Your task to perform on an android device: When is my next meeting? Image 0: 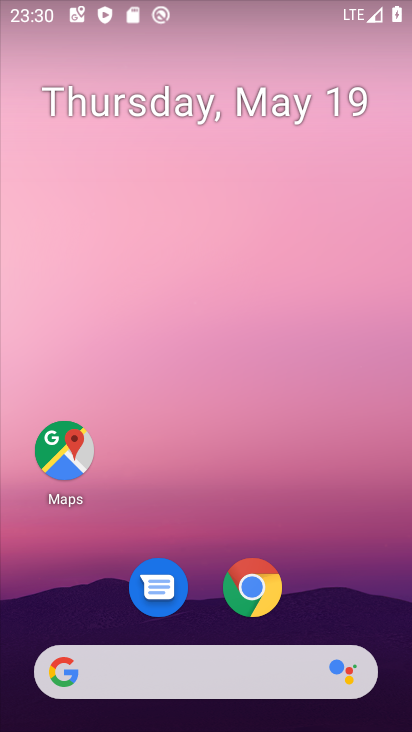
Step 0: press home button
Your task to perform on an android device: When is my next meeting? Image 1: 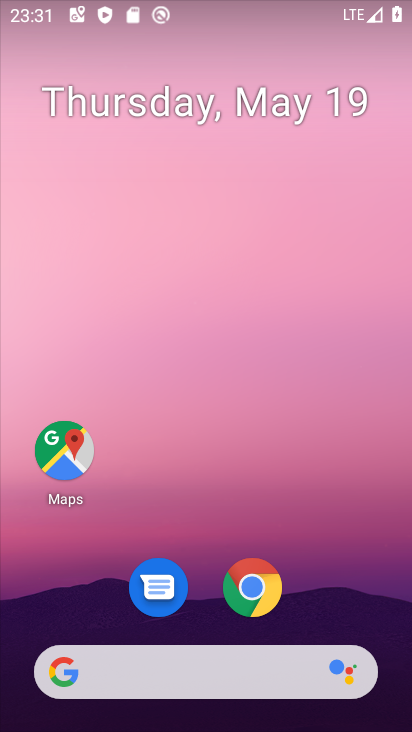
Step 1: drag from (205, 720) to (222, 290)
Your task to perform on an android device: When is my next meeting? Image 2: 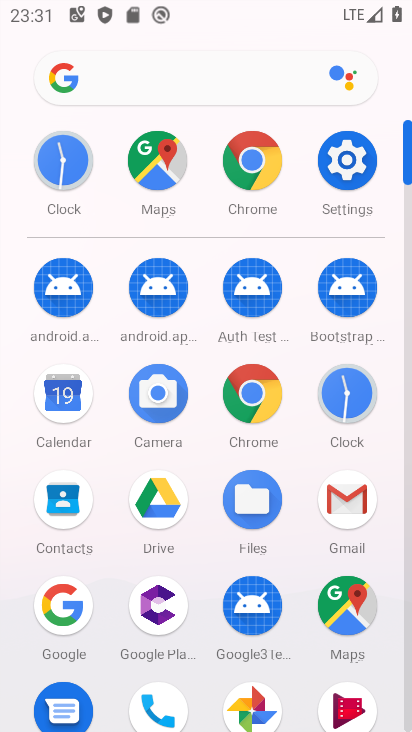
Step 2: click (64, 415)
Your task to perform on an android device: When is my next meeting? Image 3: 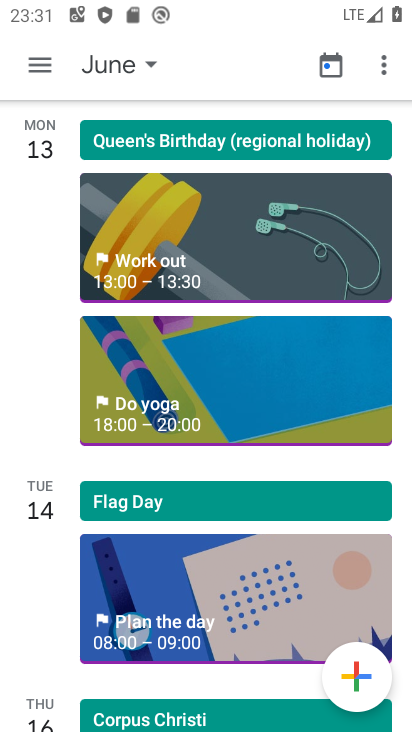
Step 3: click (42, 72)
Your task to perform on an android device: When is my next meeting? Image 4: 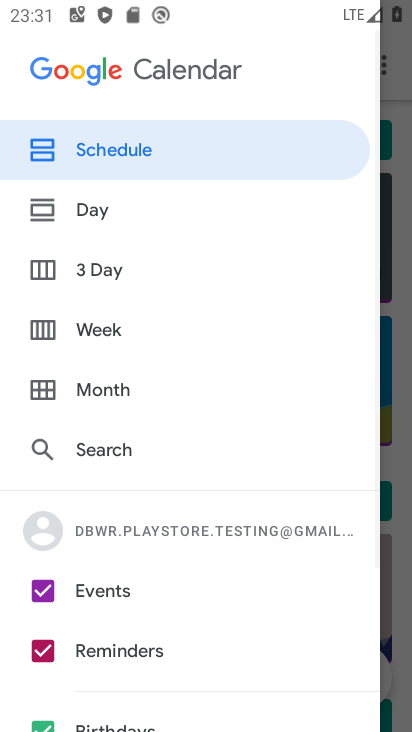
Step 4: click (103, 397)
Your task to perform on an android device: When is my next meeting? Image 5: 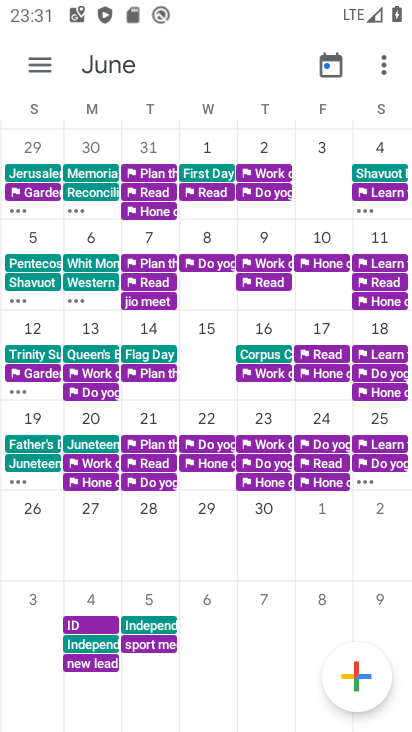
Step 5: drag from (29, 401) to (398, 386)
Your task to perform on an android device: When is my next meeting? Image 6: 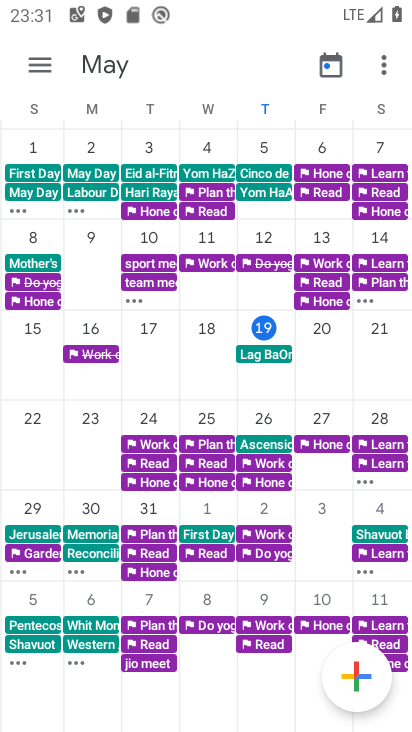
Step 6: click (249, 346)
Your task to perform on an android device: When is my next meeting? Image 7: 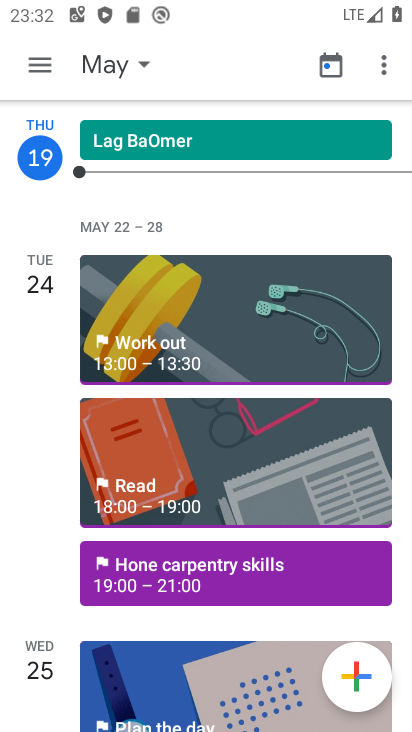
Step 7: task complete